Your task to perform on an android device: turn on data saver in the chrome app Image 0: 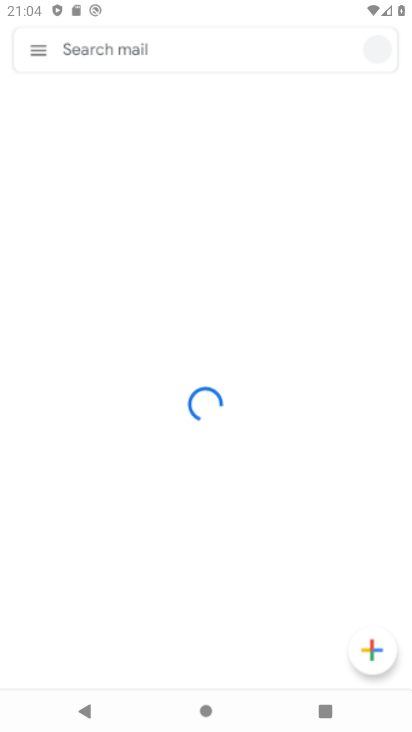
Step 0: press home button
Your task to perform on an android device: turn on data saver in the chrome app Image 1: 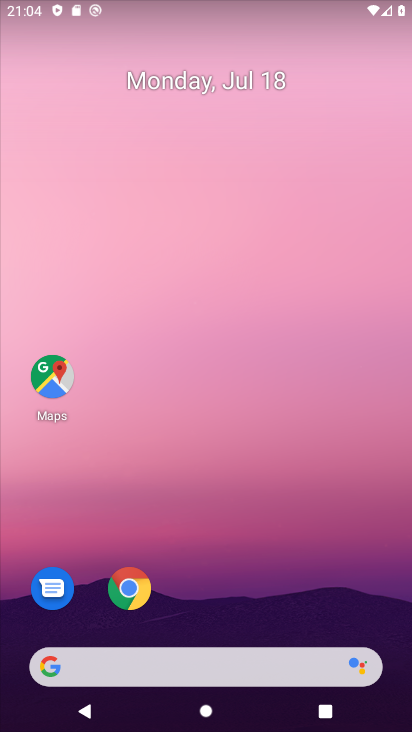
Step 1: drag from (254, 628) to (363, 131)
Your task to perform on an android device: turn on data saver in the chrome app Image 2: 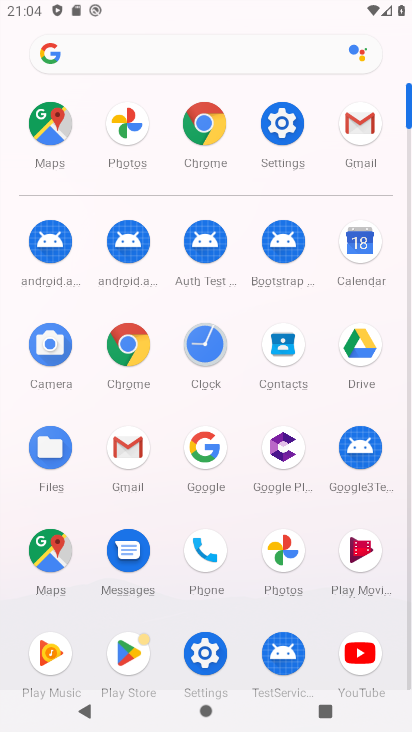
Step 2: click (227, 127)
Your task to perform on an android device: turn on data saver in the chrome app Image 3: 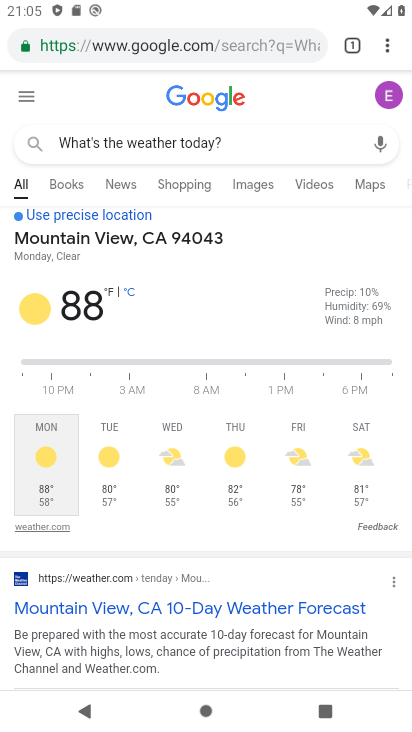
Step 3: drag from (380, 49) to (221, 499)
Your task to perform on an android device: turn on data saver in the chrome app Image 4: 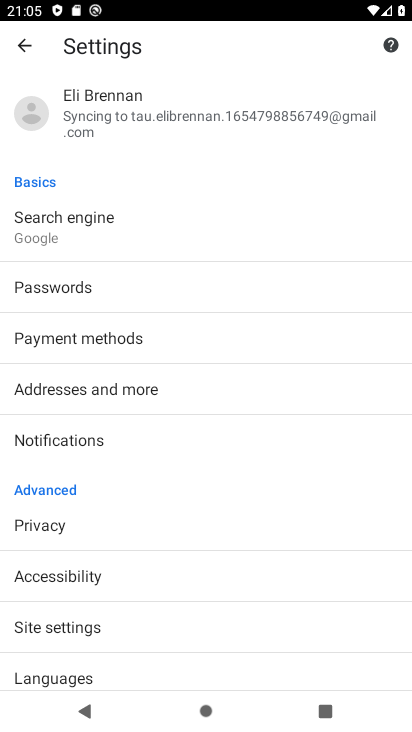
Step 4: drag from (120, 619) to (155, 248)
Your task to perform on an android device: turn on data saver in the chrome app Image 5: 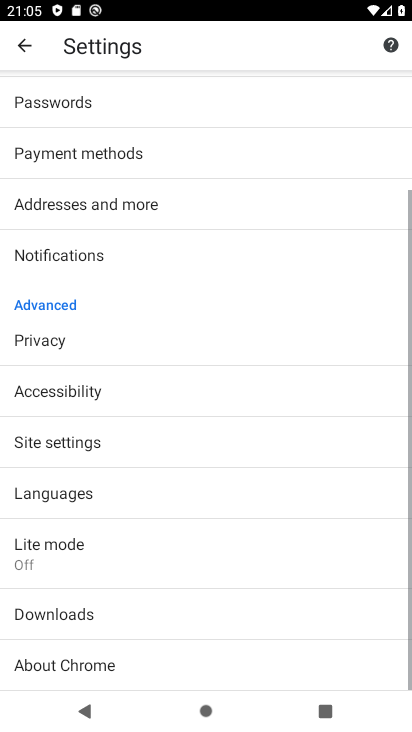
Step 5: click (46, 566)
Your task to perform on an android device: turn on data saver in the chrome app Image 6: 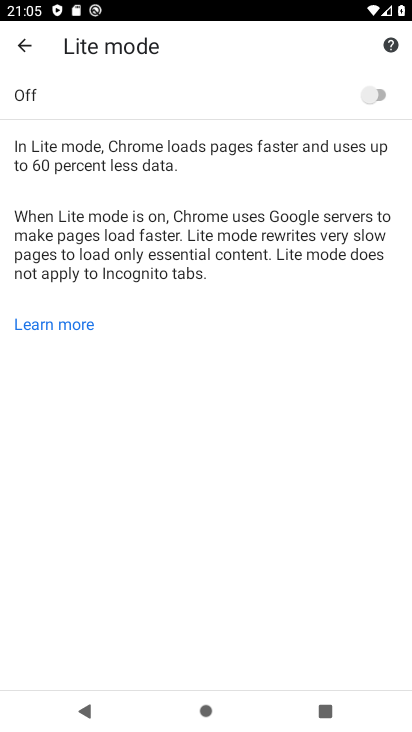
Step 6: click (191, 115)
Your task to perform on an android device: turn on data saver in the chrome app Image 7: 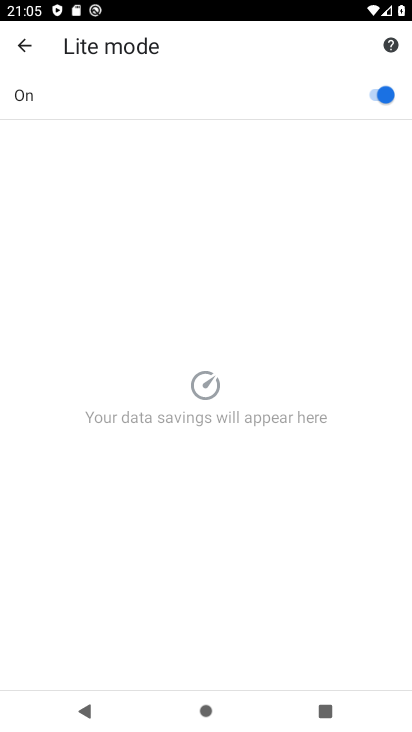
Step 7: task complete